Your task to perform on an android device: Go to notification settings Image 0: 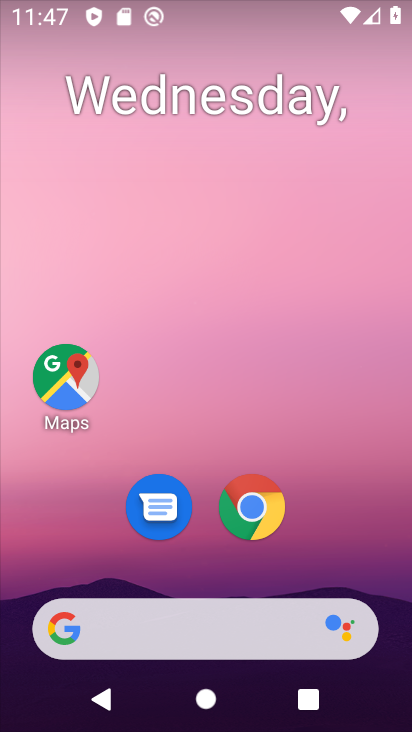
Step 0: drag from (213, 594) to (226, 192)
Your task to perform on an android device: Go to notification settings Image 1: 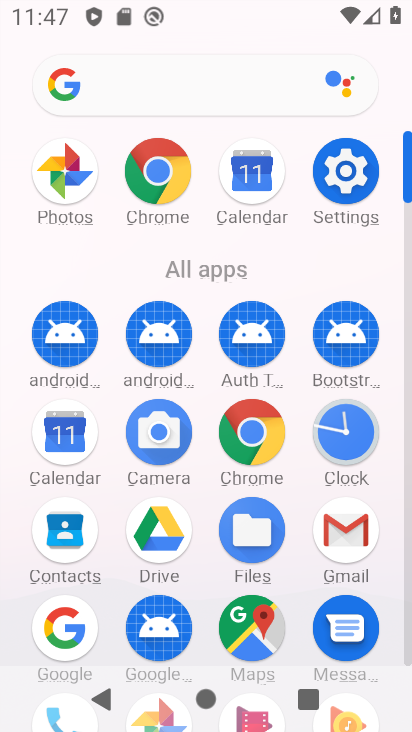
Step 1: click (348, 182)
Your task to perform on an android device: Go to notification settings Image 2: 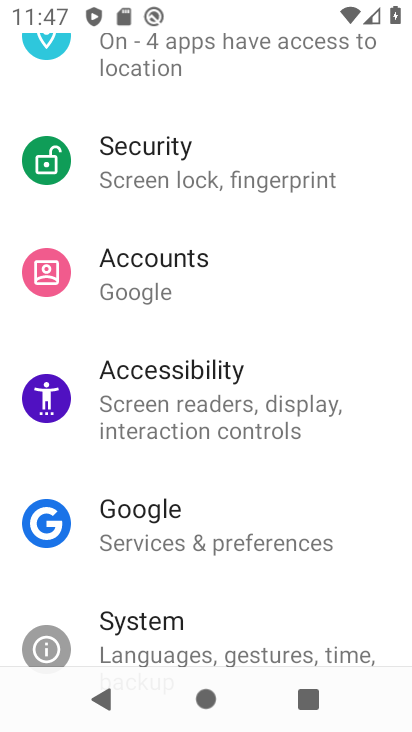
Step 2: drag from (245, 271) to (214, 447)
Your task to perform on an android device: Go to notification settings Image 3: 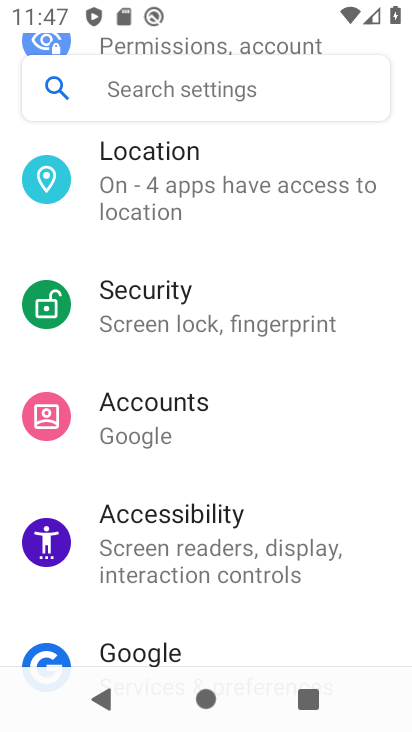
Step 3: drag from (227, 229) to (181, 493)
Your task to perform on an android device: Go to notification settings Image 4: 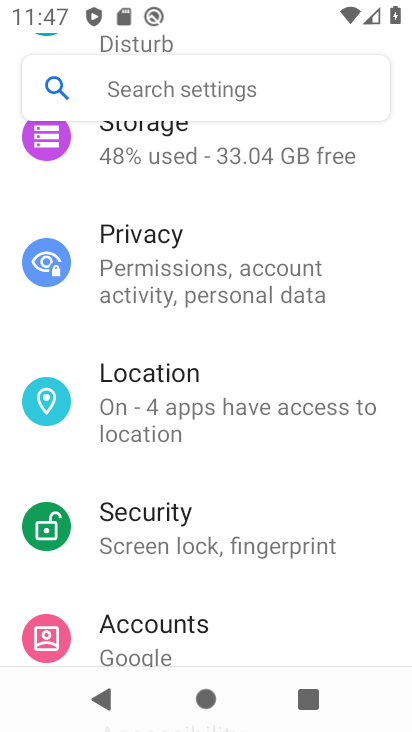
Step 4: drag from (234, 220) to (205, 522)
Your task to perform on an android device: Go to notification settings Image 5: 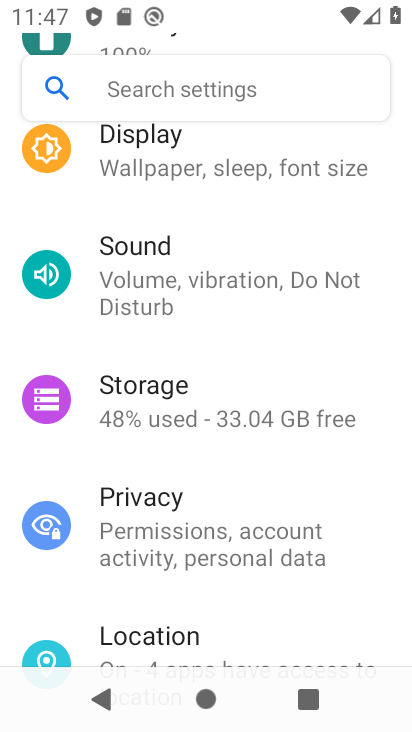
Step 5: drag from (259, 249) to (208, 553)
Your task to perform on an android device: Go to notification settings Image 6: 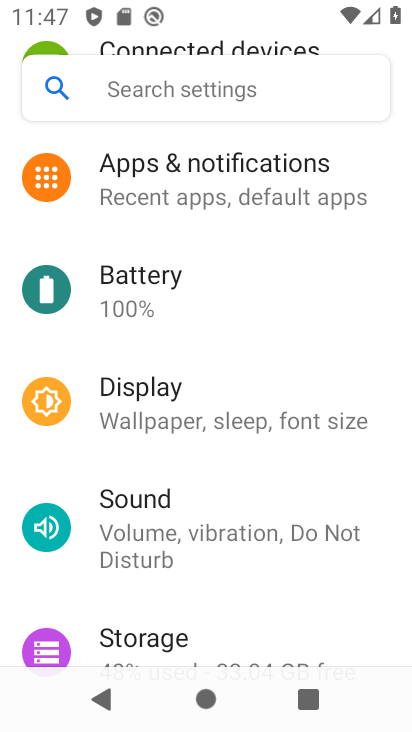
Step 6: click (255, 205)
Your task to perform on an android device: Go to notification settings Image 7: 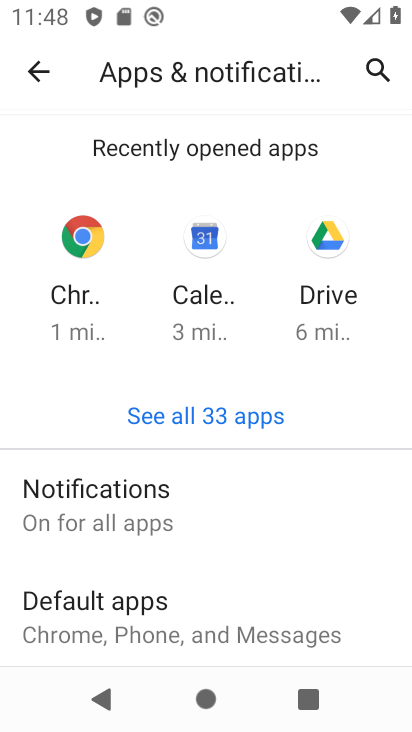
Step 7: click (261, 521)
Your task to perform on an android device: Go to notification settings Image 8: 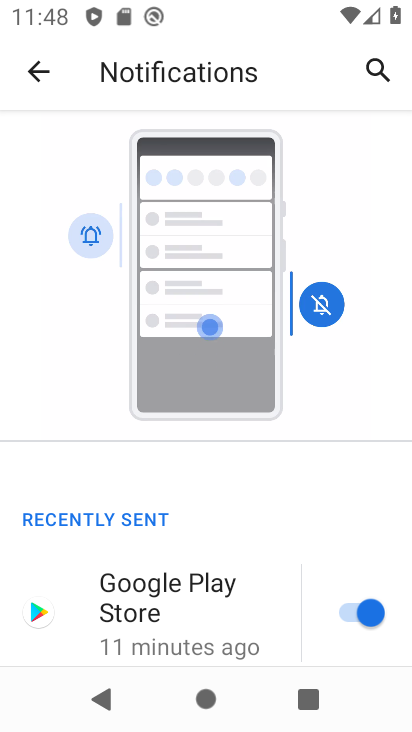
Step 8: press home button
Your task to perform on an android device: Go to notification settings Image 9: 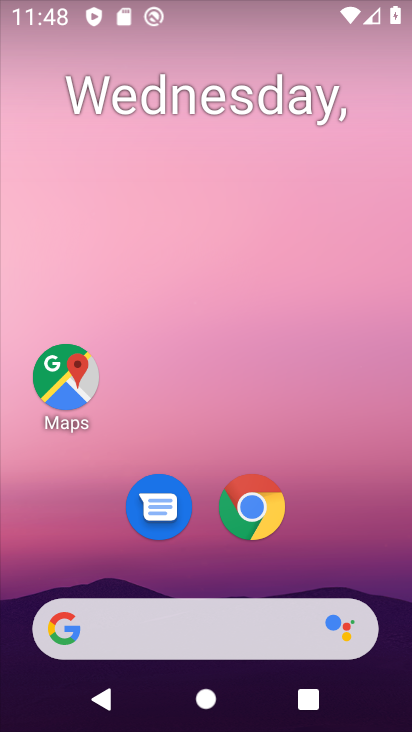
Step 9: drag from (248, 557) to (275, 139)
Your task to perform on an android device: Go to notification settings Image 10: 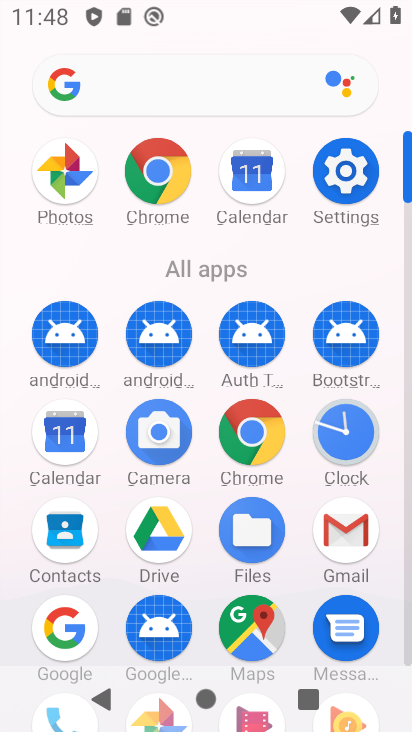
Step 10: click (357, 204)
Your task to perform on an android device: Go to notification settings Image 11: 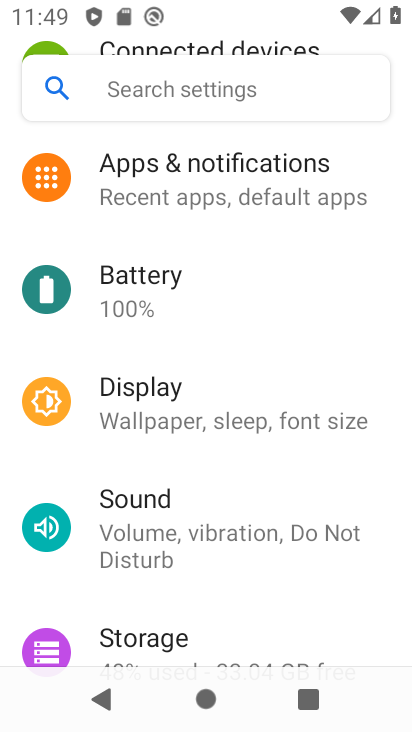
Step 11: drag from (293, 226) to (261, 376)
Your task to perform on an android device: Go to notification settings Image 12: 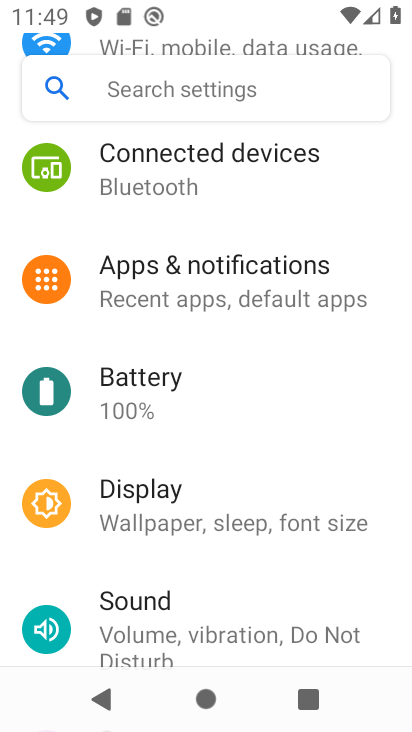
Step 12: click (243, 279)
Your task to perform on an android device: Go to notification settings Image 13: 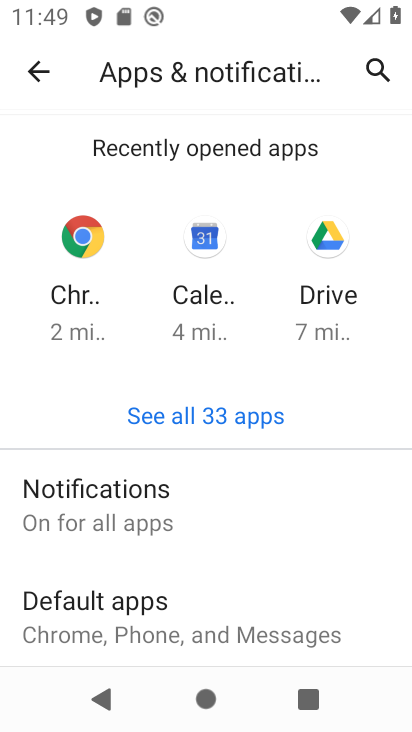
Step 13: click (212, 501)
Your task to perform on an android device: Go to notification settings Image 14: 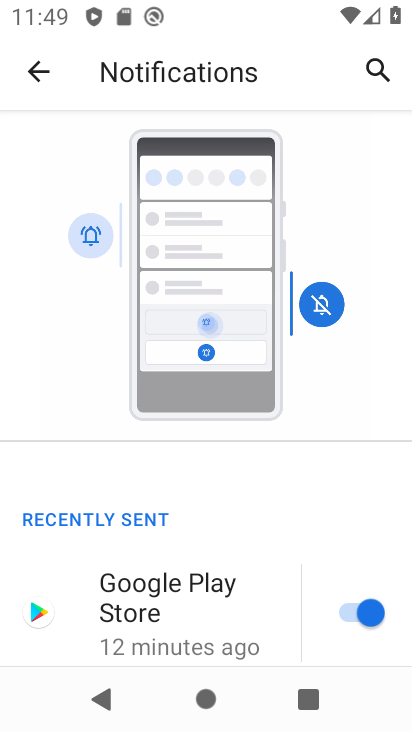
Step 14: task complete